Your task to perform on an android device: Clear the shopping cart on newegg. Add "razer deathadder" to the cart on newegg Image 0: 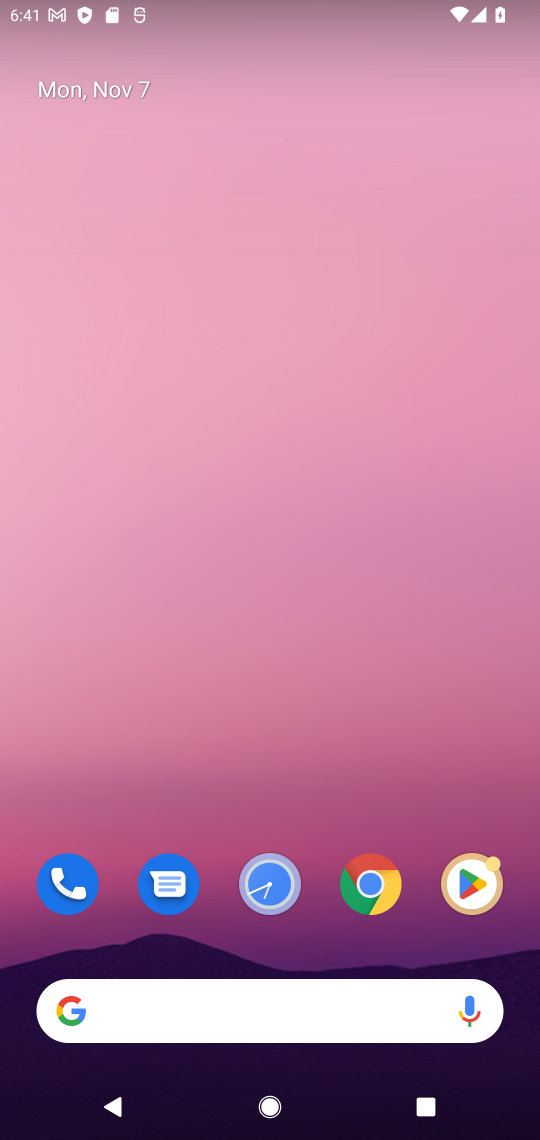
Step 0: click (369, 882)
Your task to perform on an android device: Clear the shopping cart on newegg. Add "razer deathadder" to the cart on newegg Image 1: 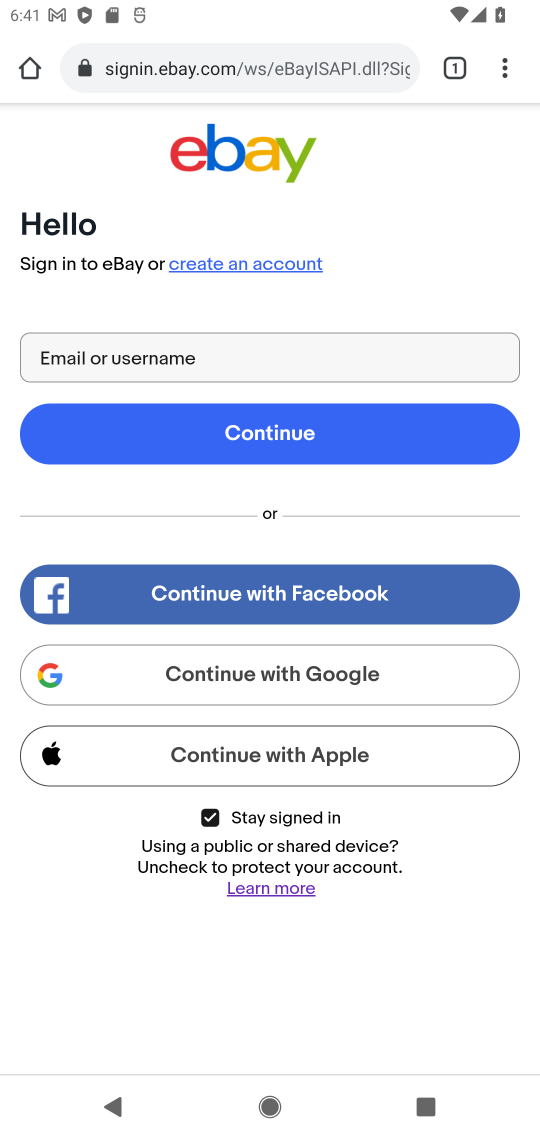
Step 1: click (456, 62)
Your task to perform on an android device: Clear the shopping cart on newegg. Add "razer deathadder" to the cart on newegg Image 2: 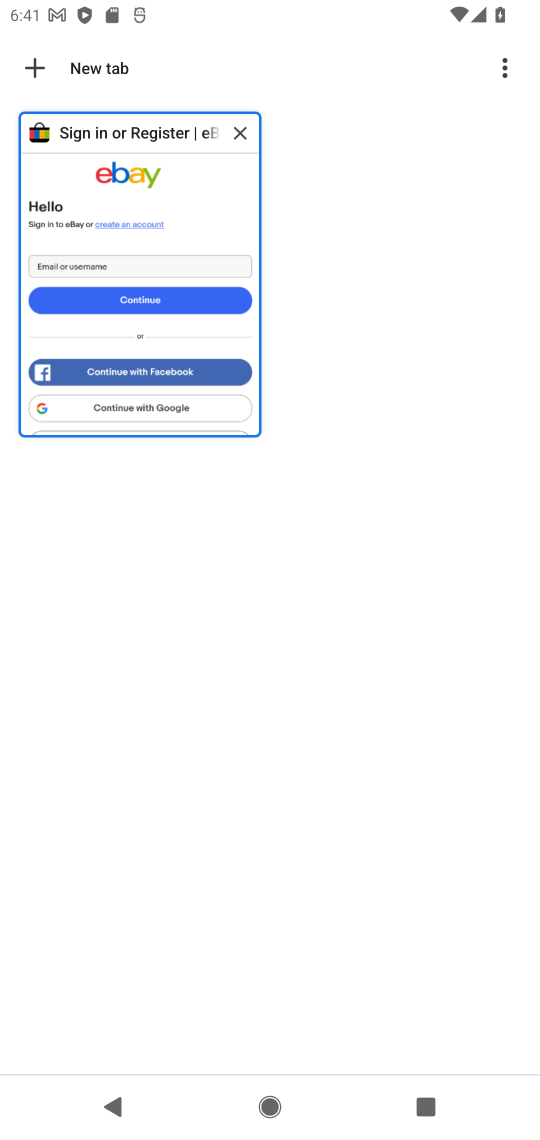
Step 2: click (38, 73)
Your task to perform on an android device: Clear the shopping cart on newegg. Add "razer deathadder" to the cart on newegg Image 3: 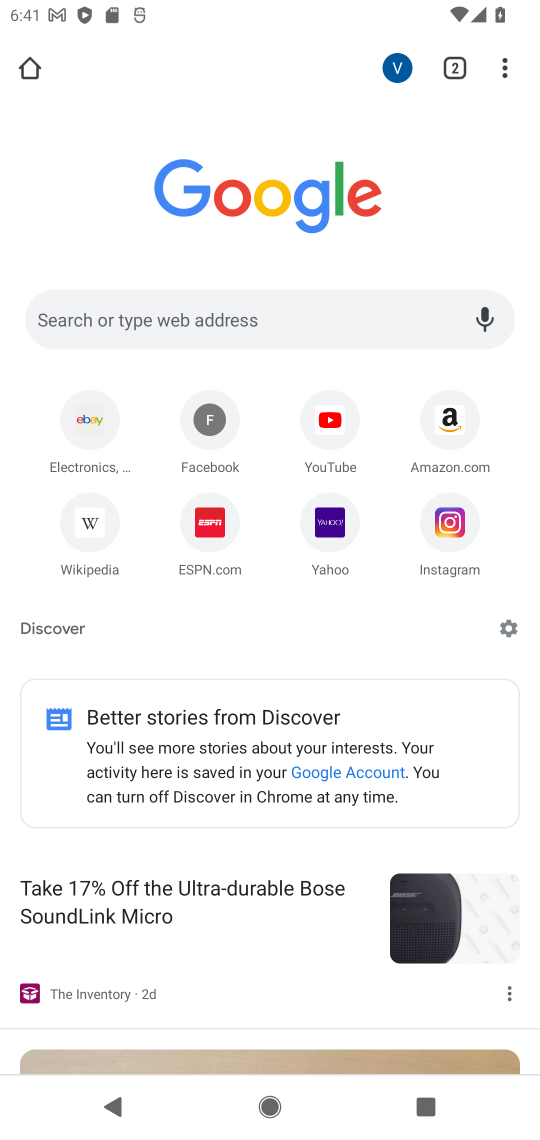
Step 3: click (259, 309)
Your task to perform on an android device: Clear the shopping cart on newegg. Add "razer deathadder" to the cart on newegg Image 4: 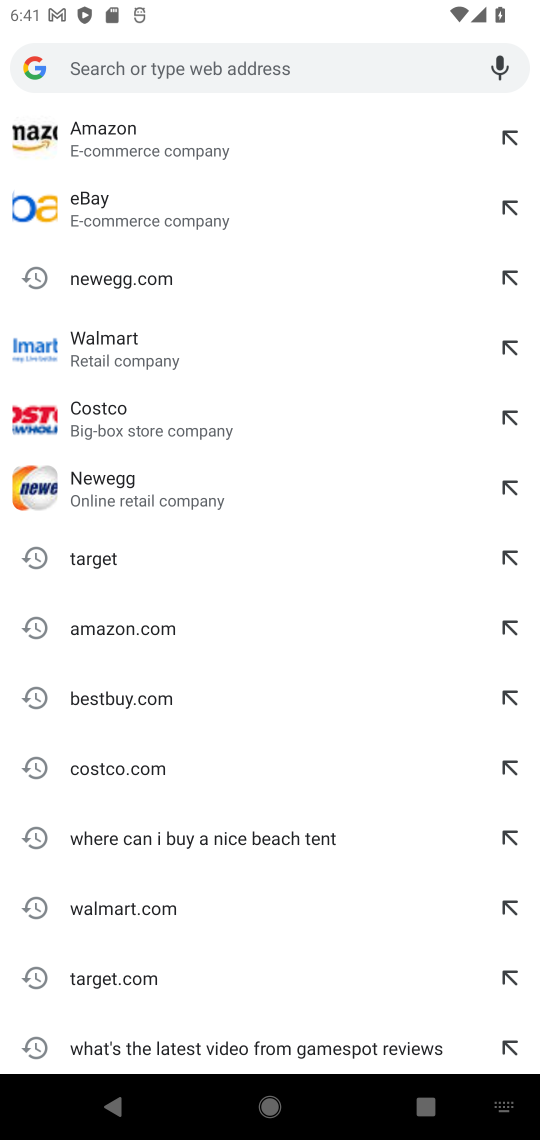
Step 4: click (105, 478)
Your task to perform on an android device: Clear the shopping cart on newegg. Add "razer deathadder" to the cart on newegg Image 5: 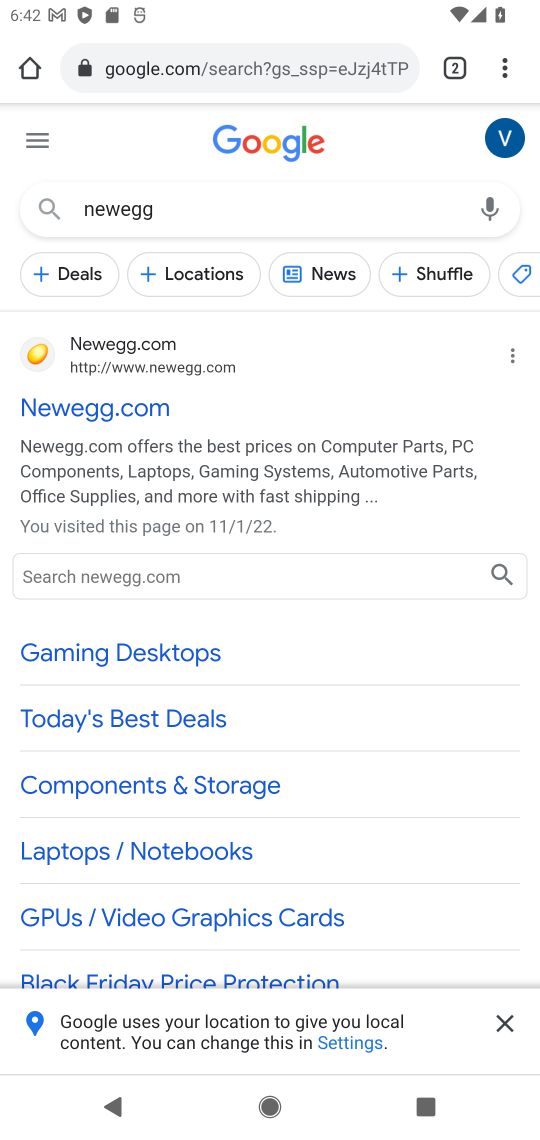
Step 5: click (79, 582)
Your task to perform on an android device: Clear the shopping cart on newegg. Add "razer deathadder" to the cart on newegg Image 6: 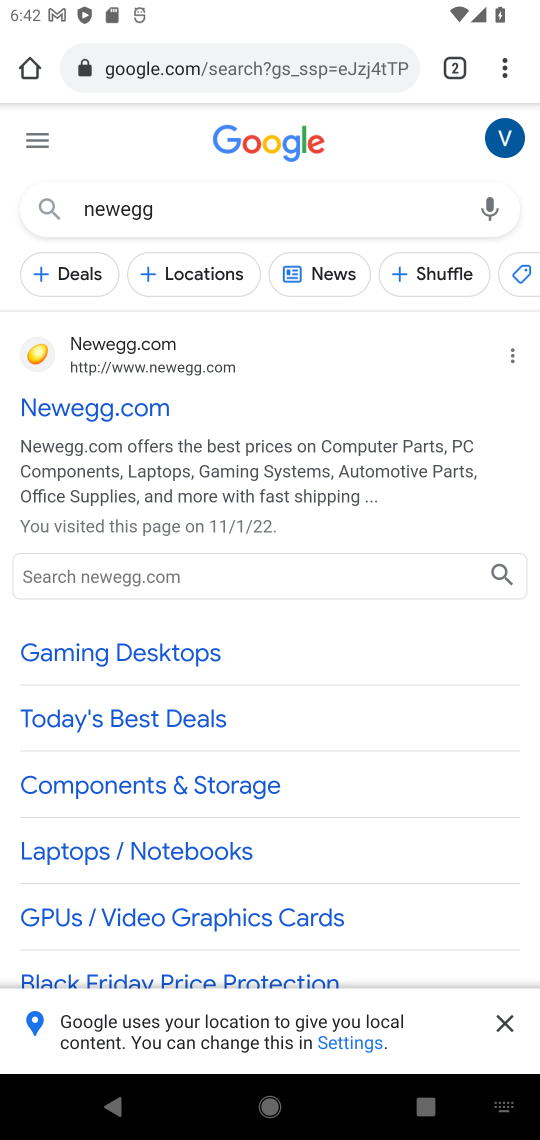
Step 6: type "razer deathadder"
Your task to perform on an android device: Clear the shopping cart on newegg. Add "razer deathadder" to the cart on newegg Image 7: 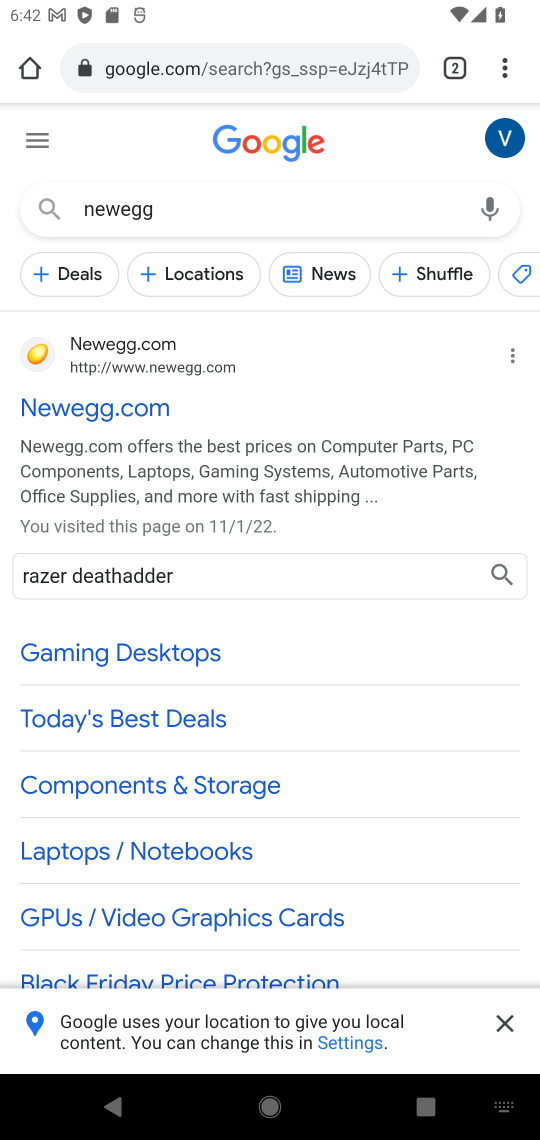
Step 7: click (504, 571)
Your task to perform on an android device: Clear the shopping cart on newegg. Add "razer deathadder" to the cart on newegg Image 8: 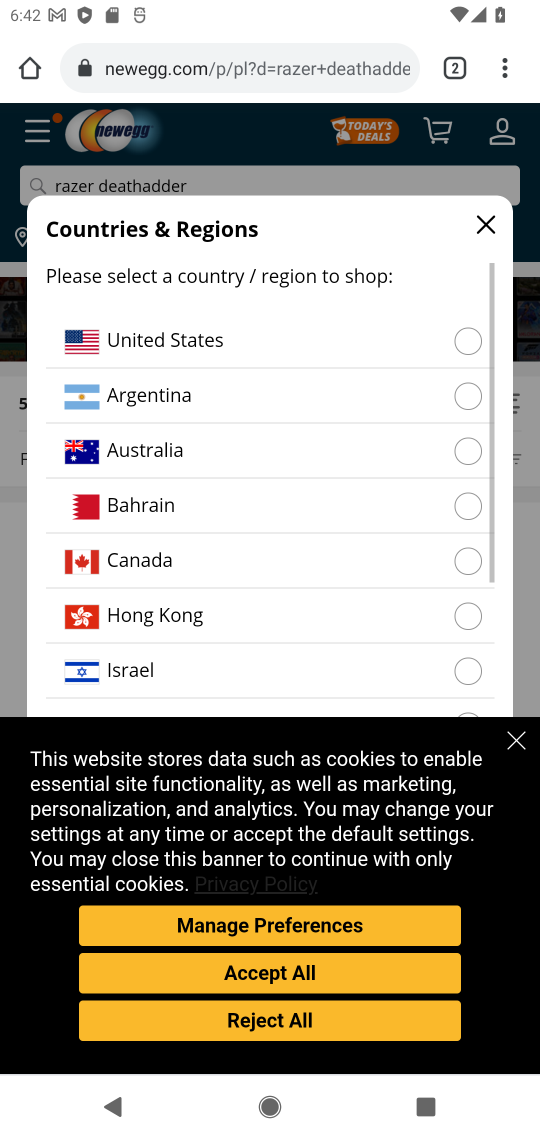
Step 8: click (252, 982)
Your task to perform on an android device: Clear the shopping cart on newegg. Add "razer deathadder" to the cart on newegg Image 9: 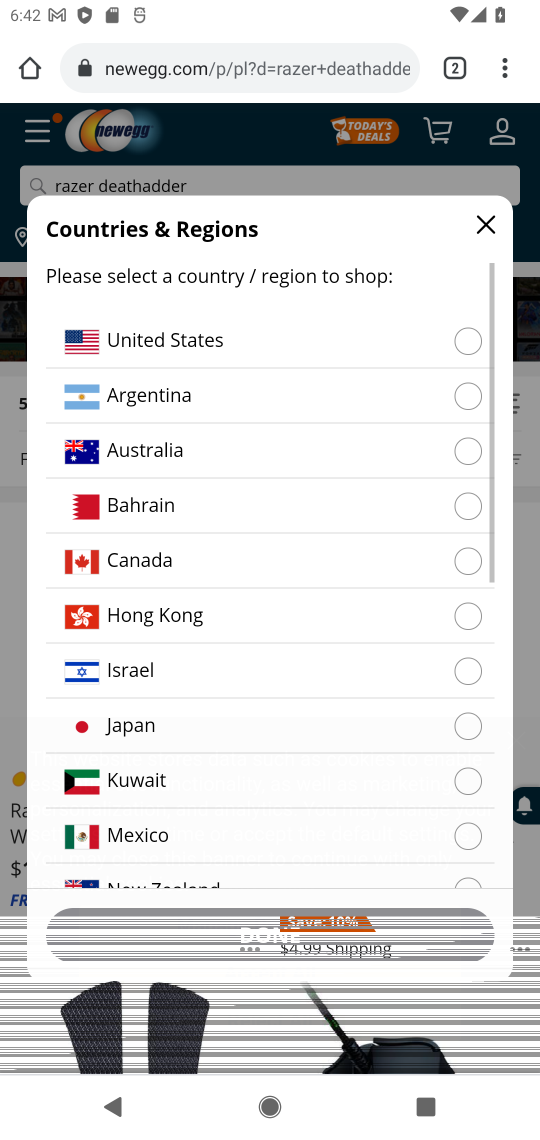
Step 9: click (468, 337)
Your task to perform on an android device: Clear the shopping cart on newegg. Add "razer deathadder" to the cart on newegg Image 10: 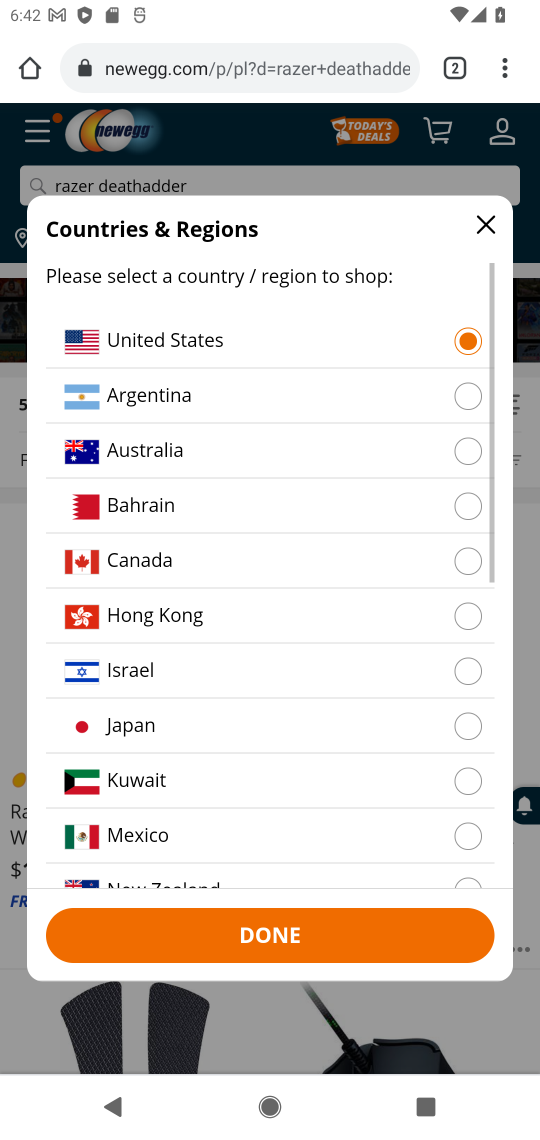
Step 10: click (277, 942)
Your task to perform on an android device: Clear the shopping cart on newegg. Add "razer deathadder" to the cart on newegg Image 11: 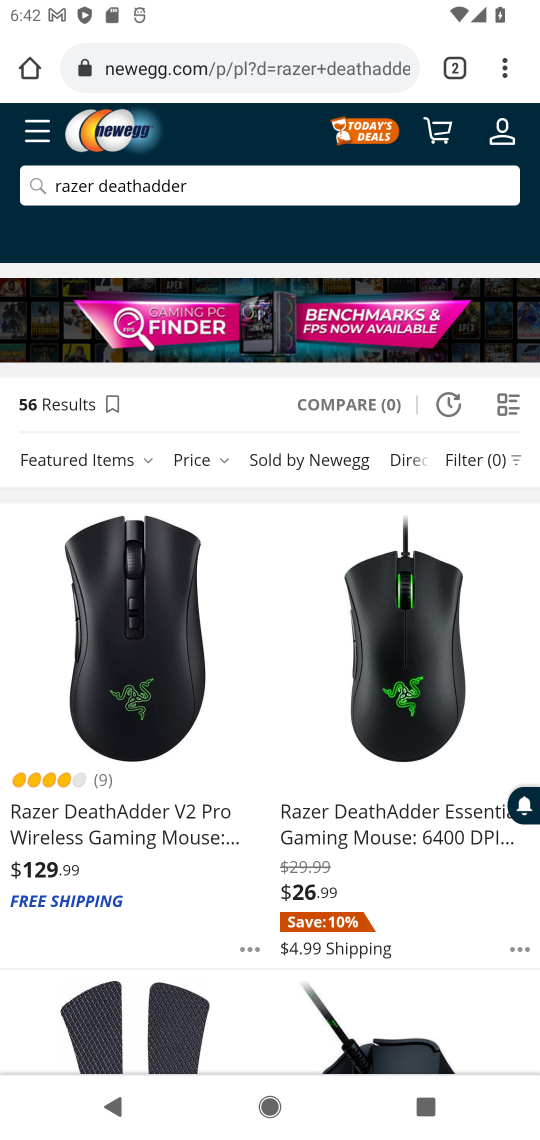
Step 11: click (156, 825)
Your task to perform on an android device: Clear the shopping cart on newegg. Add "razer deathadder" to the cart on newegg Image 12: 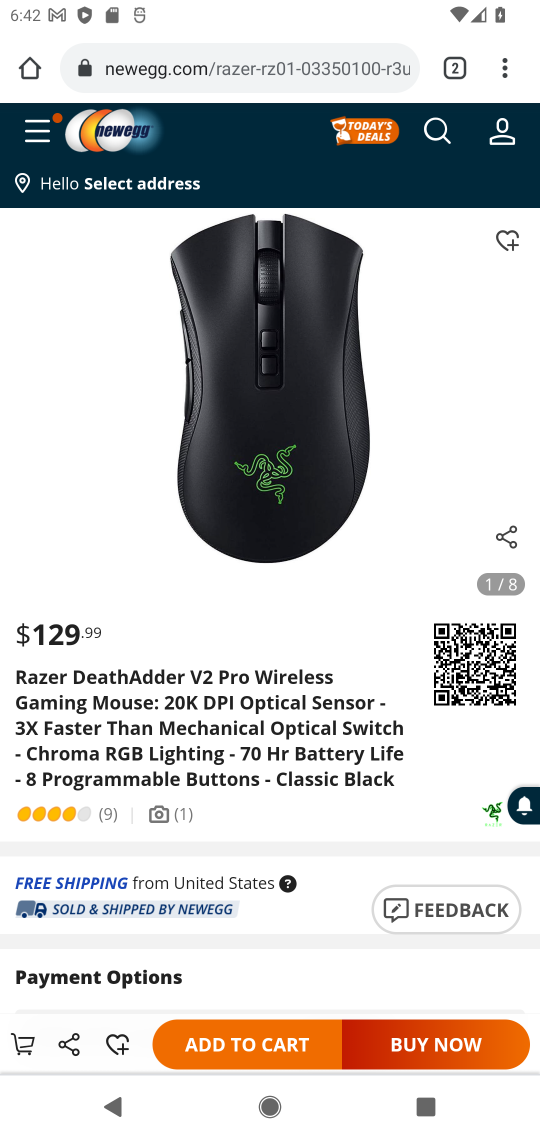
Step 12: click (231, 1048)
Your task to perform on an android device: Clear the shopping cart on newegg. Add "razer deathadder" to the cart on newegg Image 13: 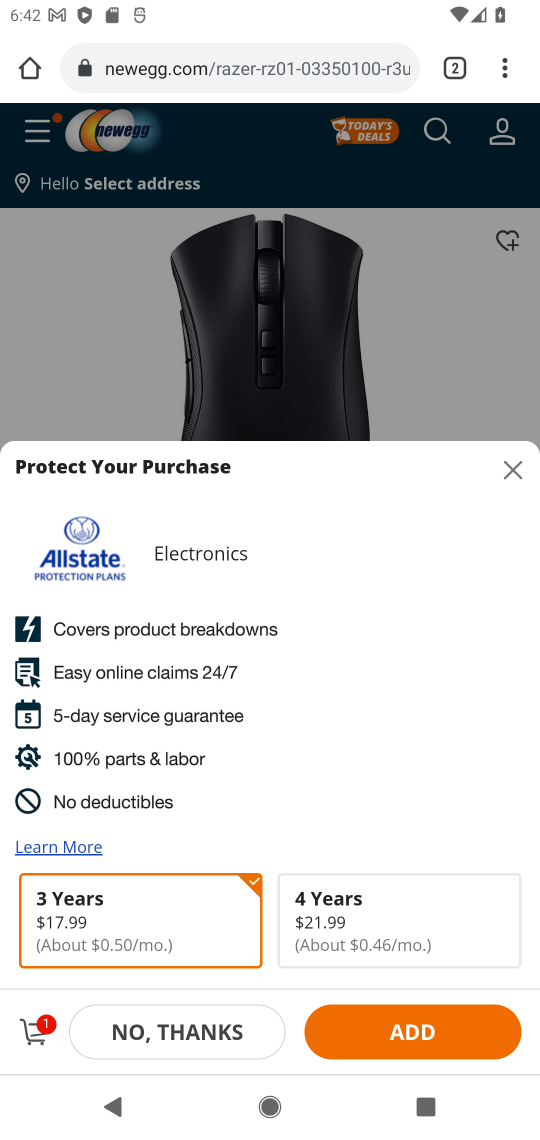
Step 13: task complete